Your task to perform on an android device: turn off javascript in the chrome app Image 0: 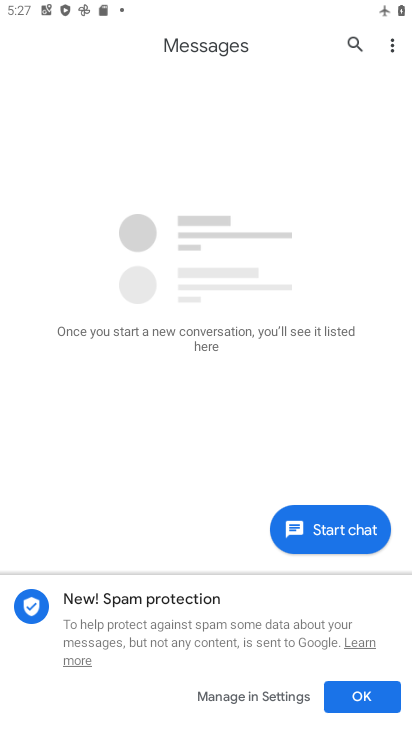
Step 0: press home button
Your task to perform on an android device: turn off javascript in the chrome app Image 1: 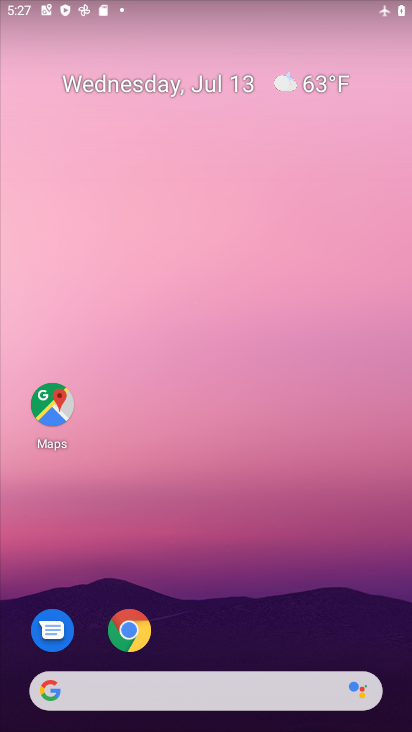
Step 1: drag from (259, 646) to (269, 207)
Your task to perform on an android device: turn off javascript in the chrome app Image 2: 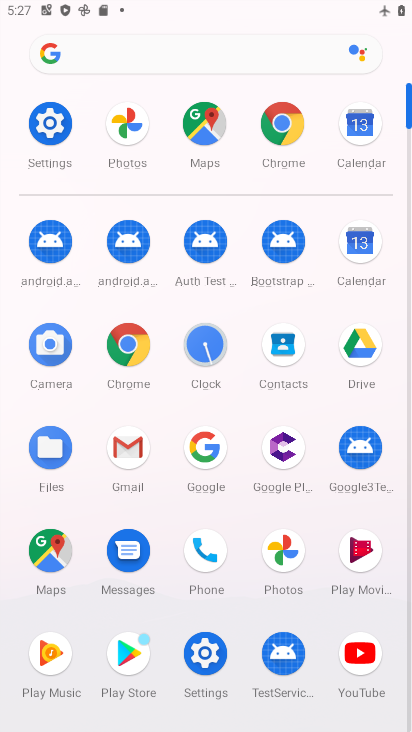
Step 2: click (275, 125)
Your task to perform on an android device: turn off javascript in the chrome app Image 3: 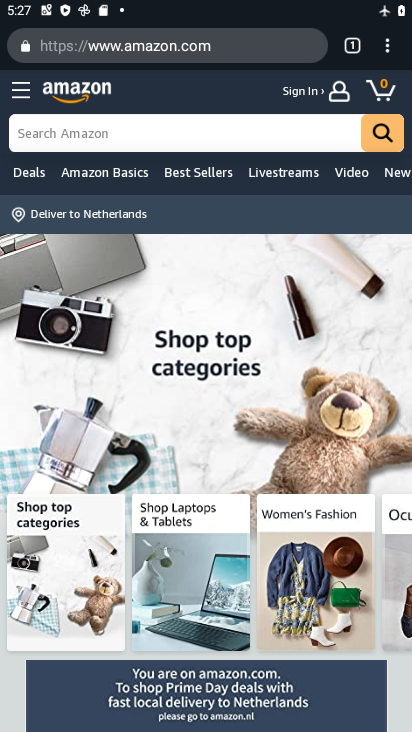
Step 3: drag from (395, 47) to (237, 562)
Your task to perform on an android device: turn off javascript in the chrome app Image 4: 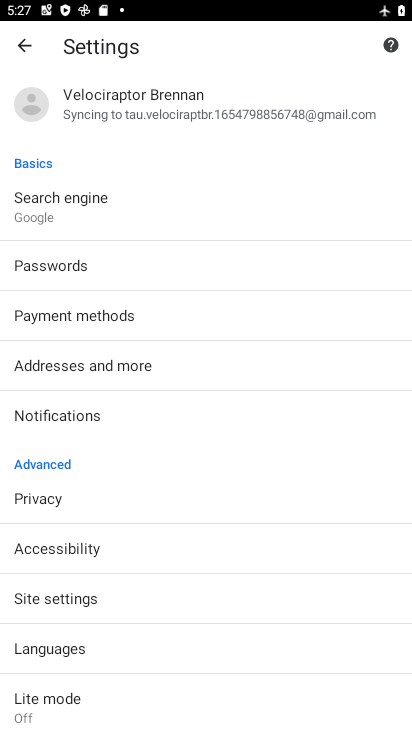
Step 4: click (66, 597)
Your task to perform on an android device: turn off javascript in the chrome app Image 5: 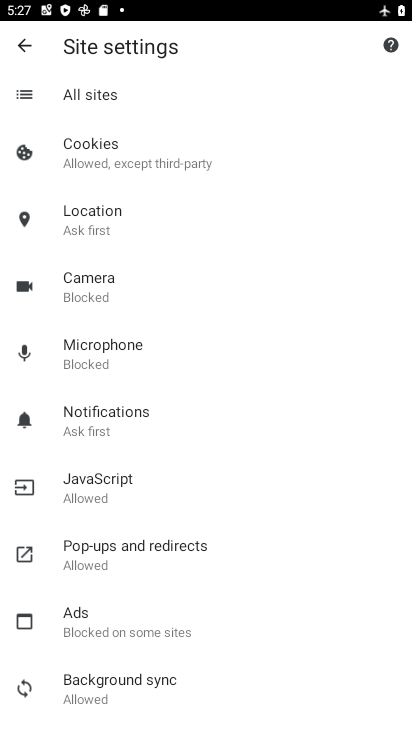
Step 5: click (94, 475)
Your task to perform on an android device: turn off javascript in the chrome app Image 6: 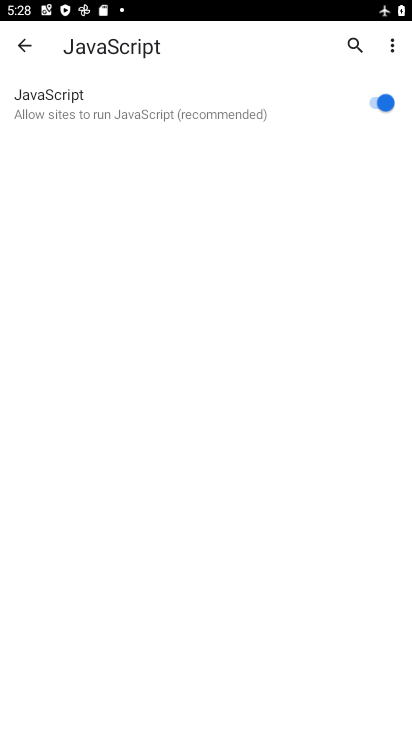
Step 6: click (386, 105)
Your task to perform on an android device: turn off javascript in the chrome app Image 7: 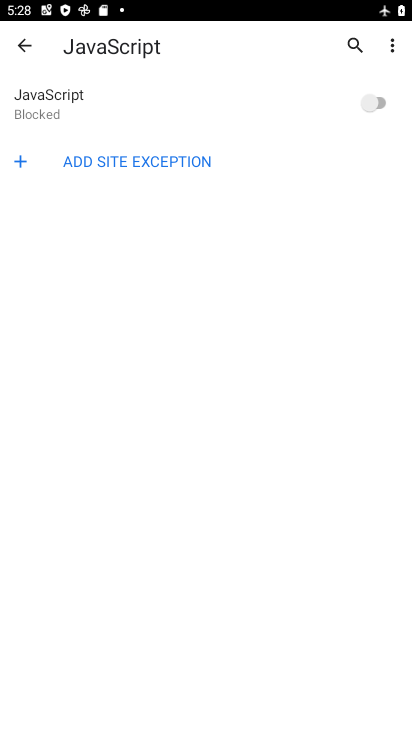
Step 7: task complete